Your task to perform on an android device: find snoozed emails in the gmail app Image 0: 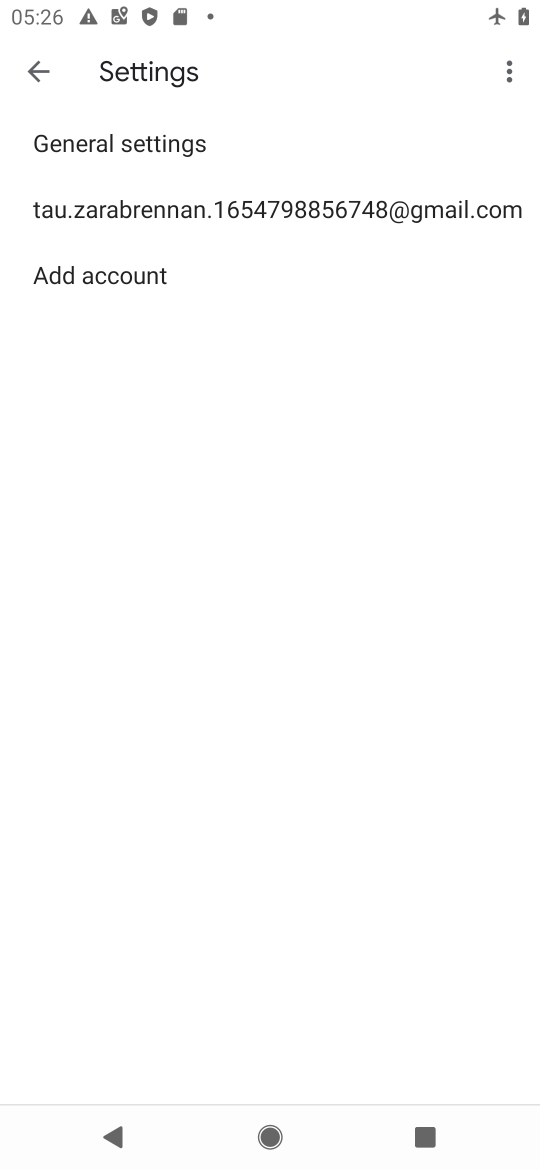
Step 0: press home button
Your task to perform on an android device: find snoozed emails in the gmail app Image 1: 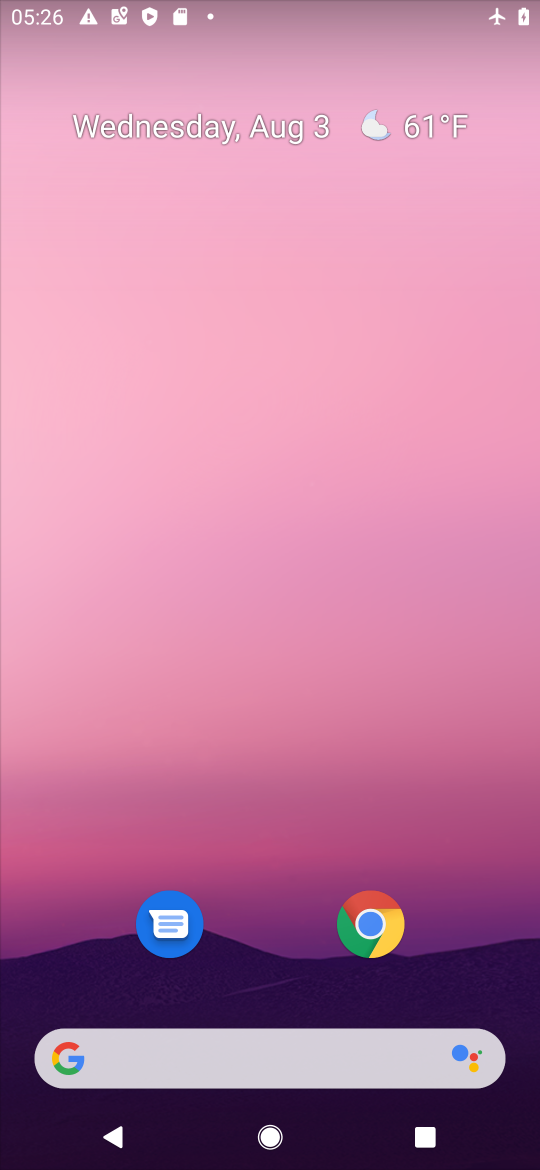
Step 1: drag from (282, 947) to (275, 317)
Your task to perform on an android device: find snoozed emails in the gmail app Image 2: 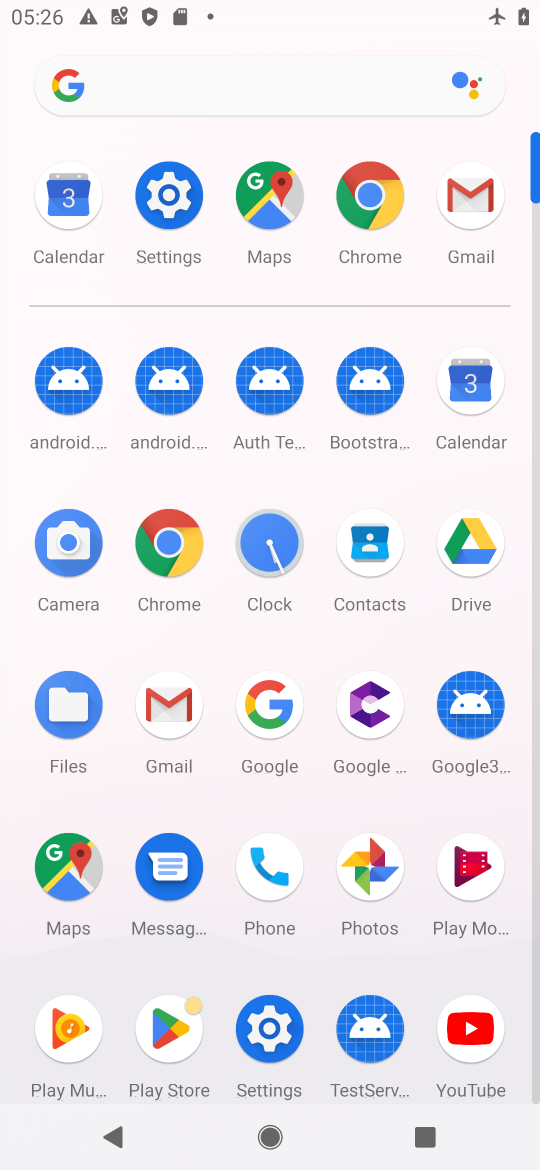
Step 2: click (452, 209)
Your task to perform on an android device: find snoozed emails in the gmail app Image 3: 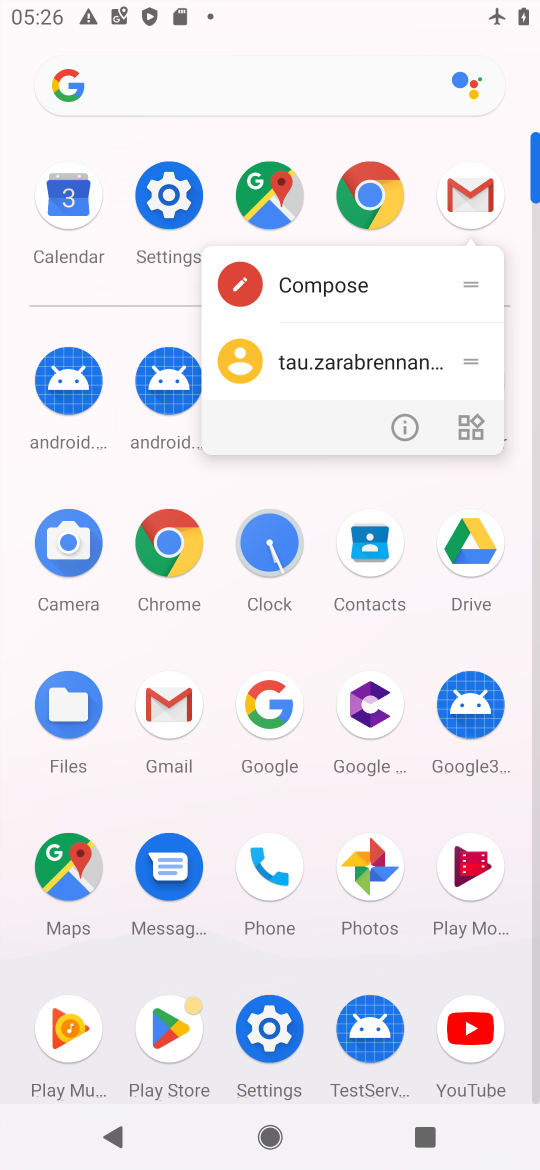
Step 3: click (470, 185)
Your task to perform on an android device: find snoozed emails in the gmail app Image 4: 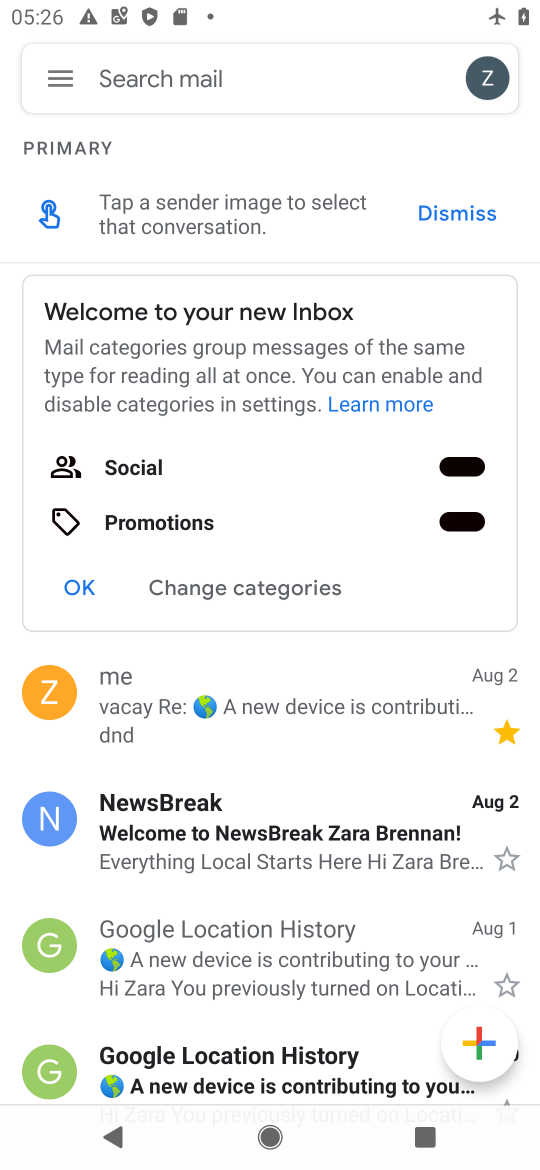
Step 4: click (70, 74)
Your task to perform on an android device: find snoozed emails in the gmail app Image 5: 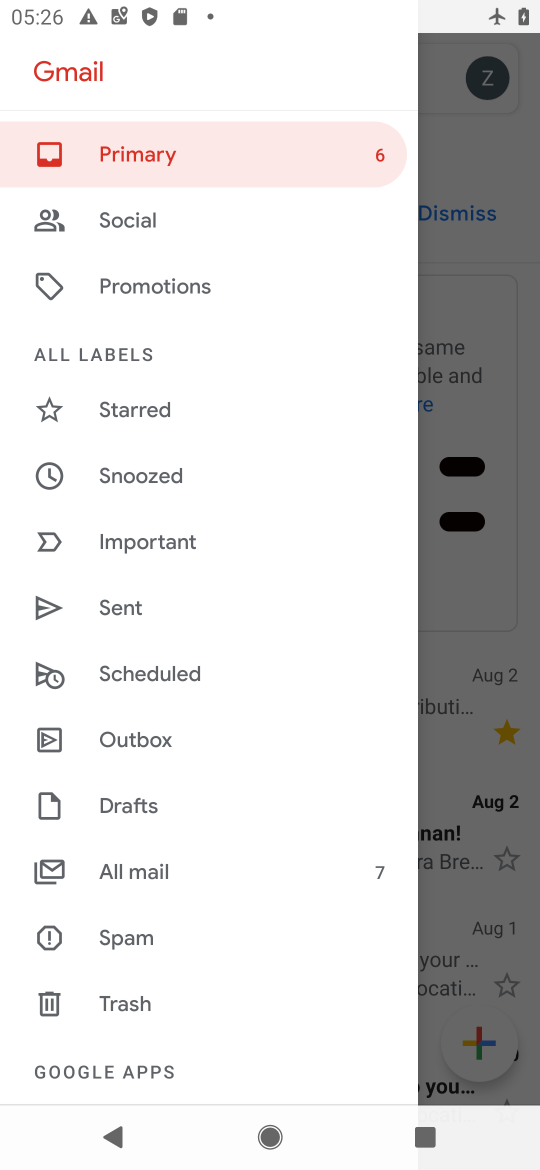
Step 5: click (179, 476)
Your task to perform on an android device: find snoozed emails in the gmail app Image 6: 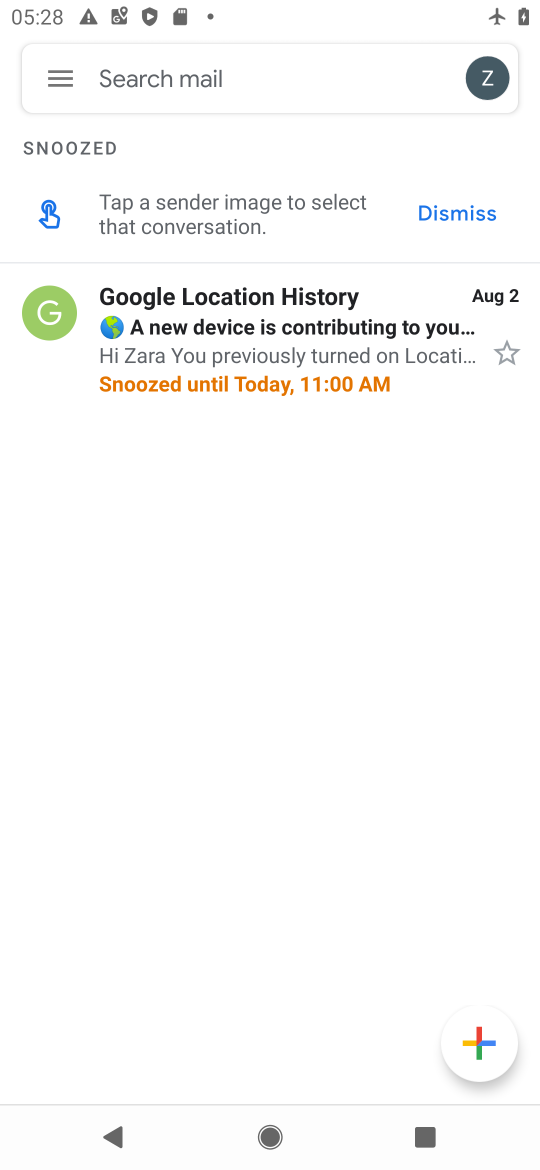
Step 6: task complete